Your task to perform on an android device: check data usage Image 0: 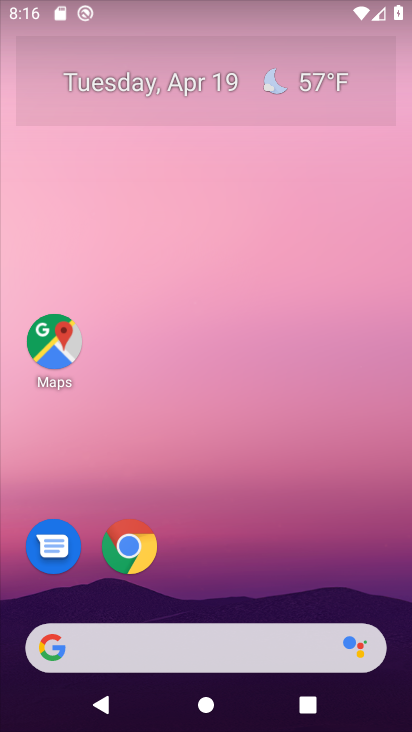
Step 0: drag from (218, 593) to (314, 40)
Your task to perform on an android device: check data usage Image 1: 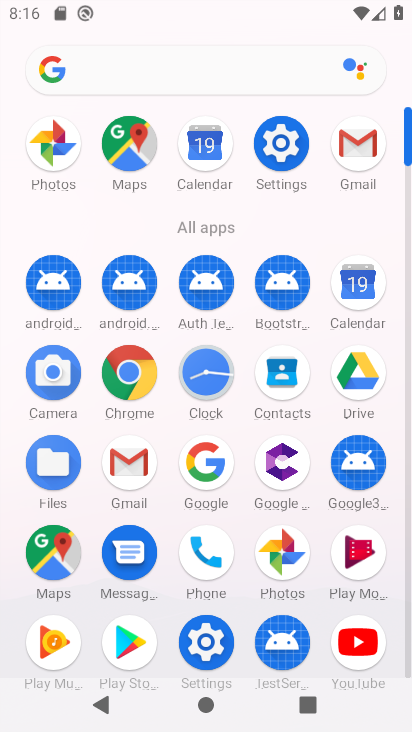
Step 1: click (288, 154)
Your task to perform on an android device: check data usage Image 2: 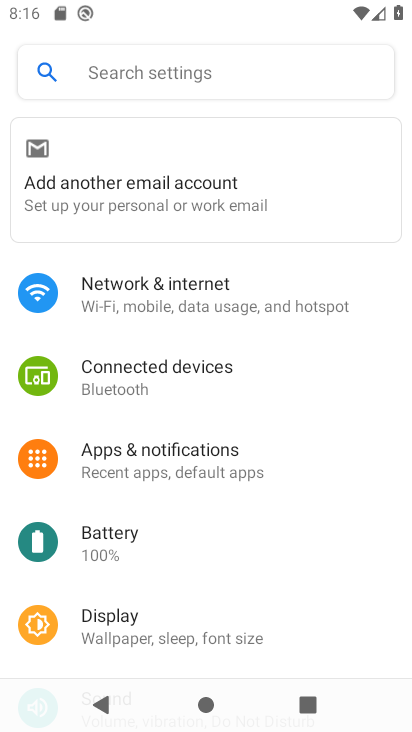
Step 2: drag from (212, 581) to (269, 147)
Your task to perform on an android device: check data usage Image 3: 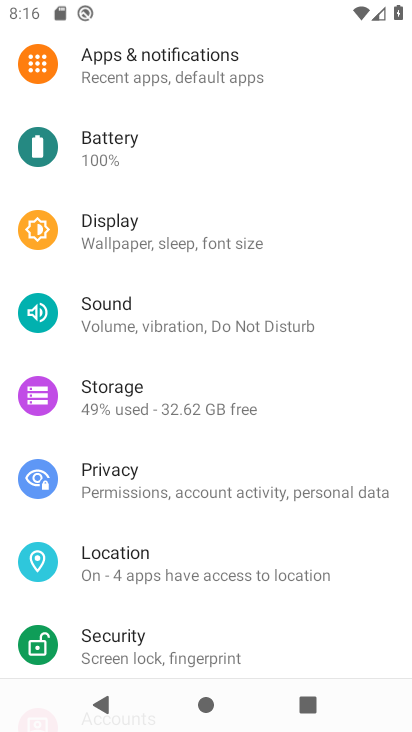
Step 3: drag from (192, 552) to (285, 0)
Your task to perform on an android device: check data usage Image 4: 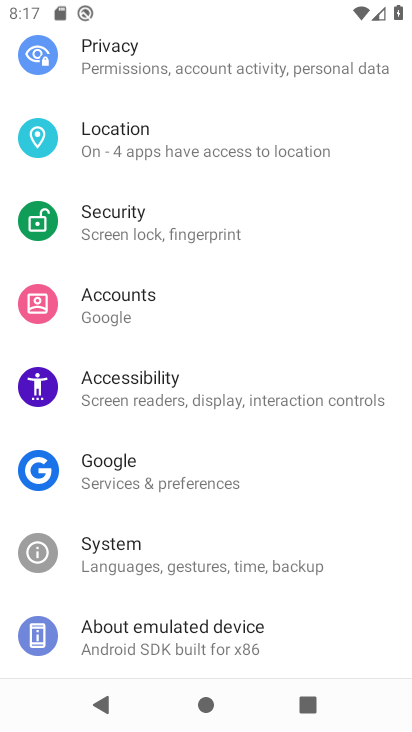
Step 4: drag from (138, 131) to (159, 731)
Your task to perform on an android device: check data usage Image 5: 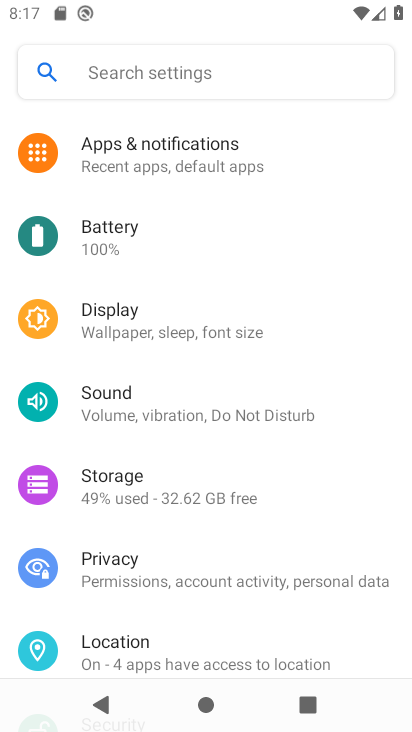
Step 5: drag from (169, 309) to (169, 599)
Your task to perform on an android device: check data usage Image 6: 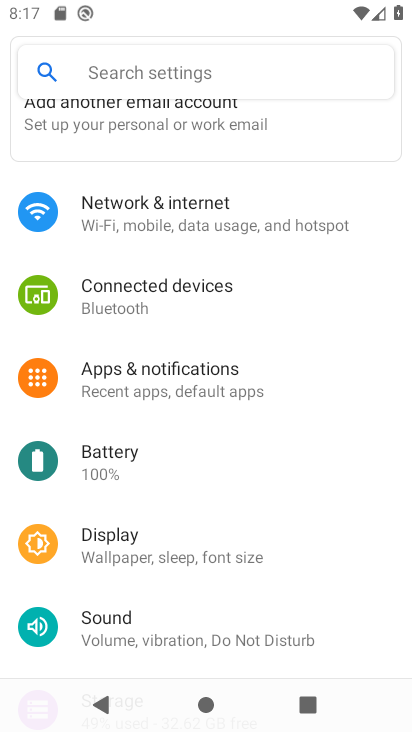
Step 6: click (159, 230)
Your task to perform on an android device: check data usage Image 7: 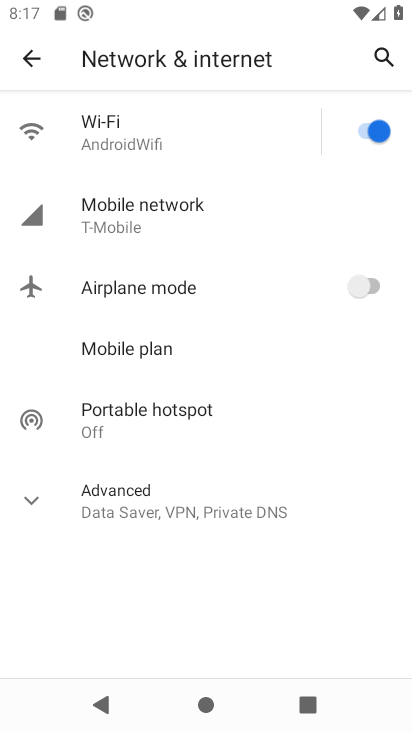
Step 7: click (160, 221)
Your task to perform on an android device: check data usage Image 8: 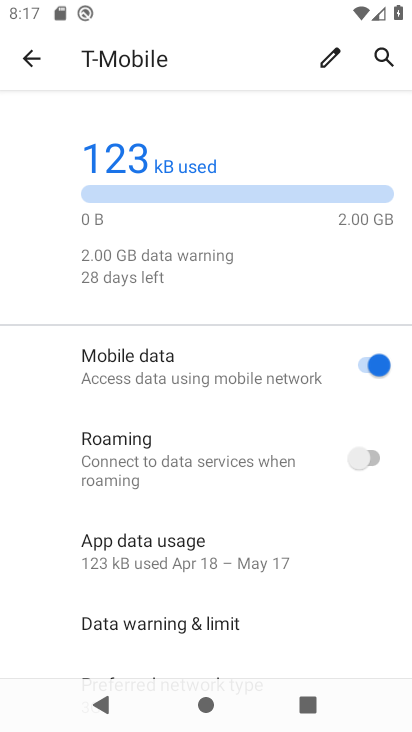
Step 8: drag from (154, 575) to (164, 467)
Your task to perform on an android device: check data usage Image 9: 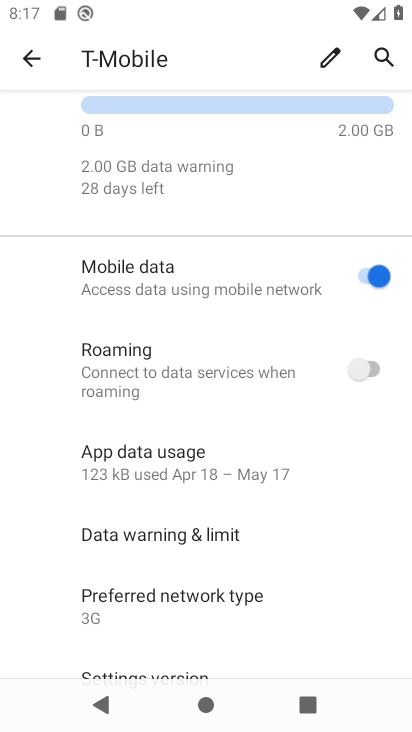
Step 9: click (162, 484)
Your task to perform on an android device: check data usage Image 10: 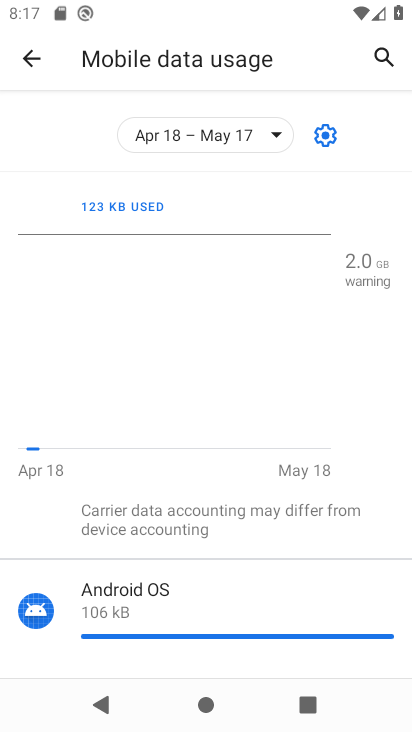
Step 10: task complete